Your task to perform on an android device: Open Google Maps and go to "Timeline" Image 0: 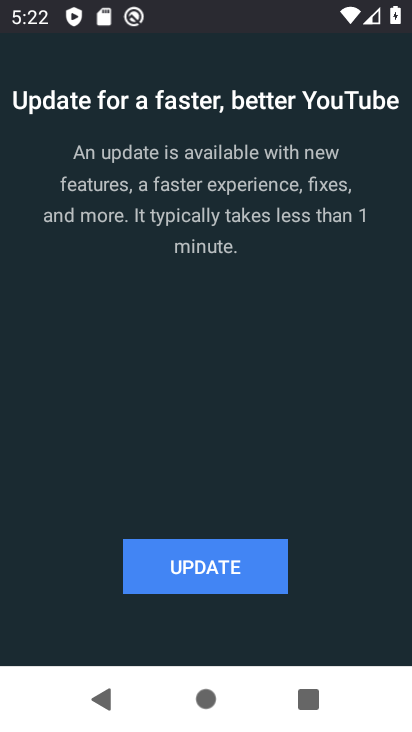
Step 0: press back button
Your task to perform on an android device: Open Google Maps and go to "Timeline" Image 1: 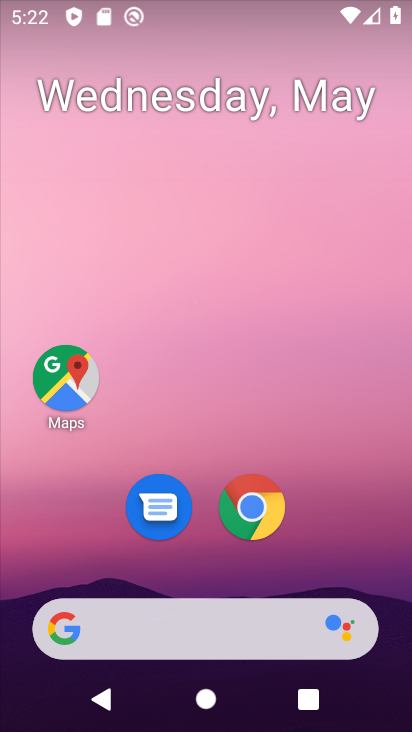
Step 1: click (62, 382)
Your task to perform on an android device: Open Google Maps and go to "Timeline" Image 2: 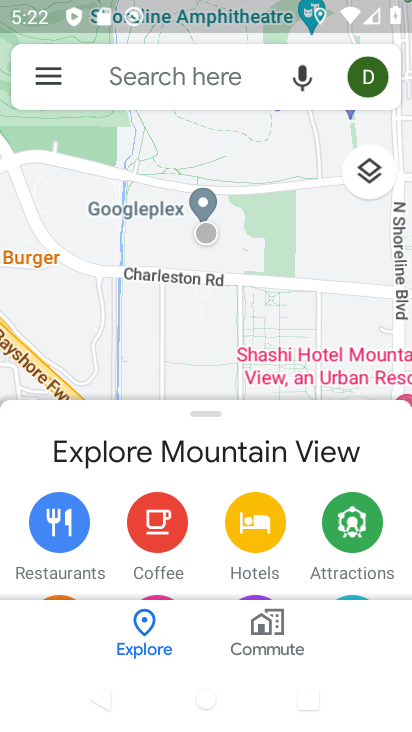
Step 2: click (43, 73)
Your task to perform on an android device: Open Google Maps and go to "Timeline" Image 3: 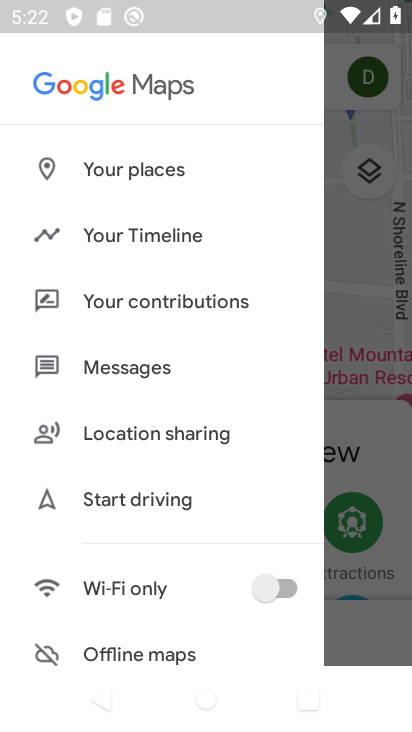
Step 3: click (139, 235)
Your task to perform on an android device: Open Google Maps and go to "Timeline" Image 4: 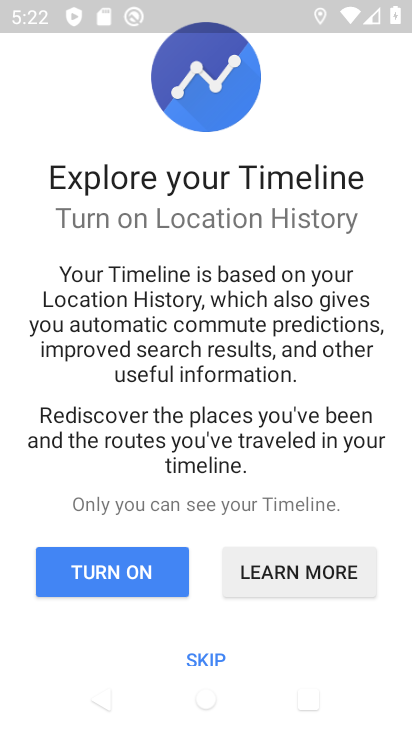
Step 4: click (209, 655)
Your task to perform on an android device: Open Google Maps and go to "Timeline" Image 5: 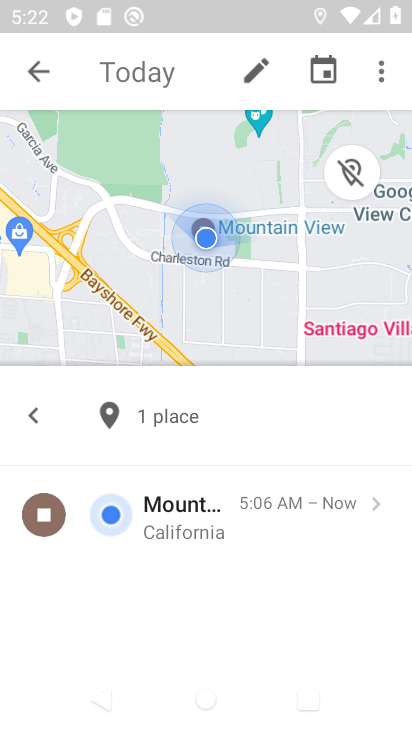
Step 5: task complete